Your task to perform on an android device: Open location settings Image 0: 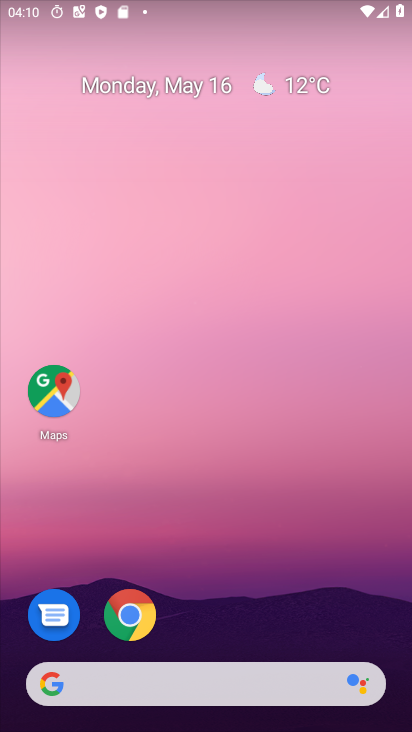
Step 0: drag from (369, 698) to (127, 113)
Your task to perform on an android device: Open location settings Image 1: 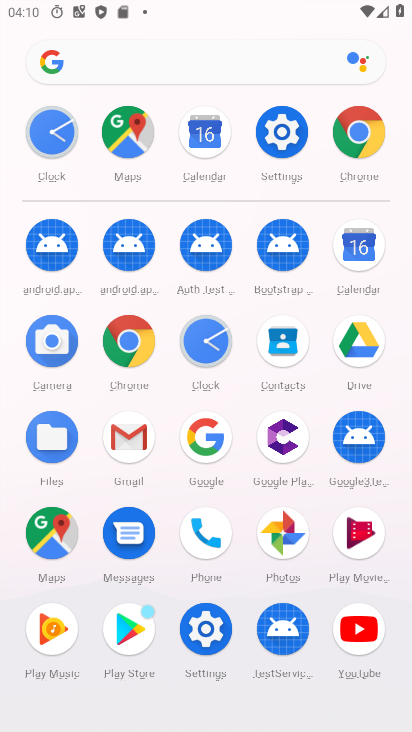
Step 1: click (201, 646)
Your task to perform on an android device: Open location settings Image 2: 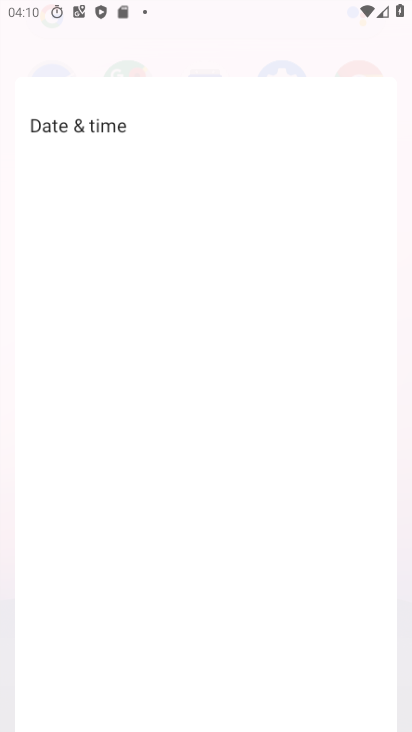
Step 2: click (196, 637)
Your task to perform on an android device: Open location settings Image 3: 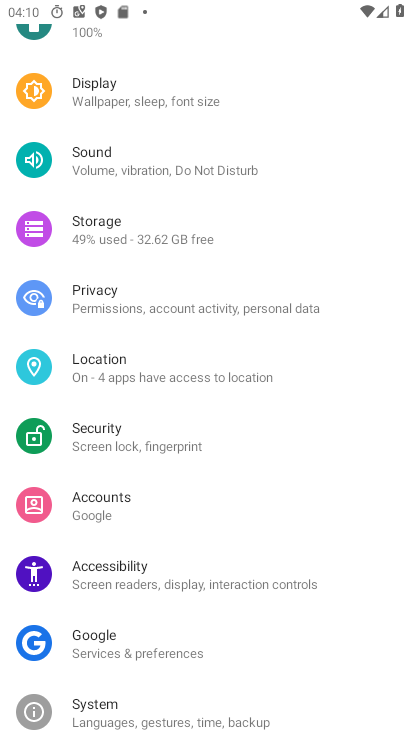
Step 3: click (196, 635)
Your task to perform on an android device: Open location settings Image 4: 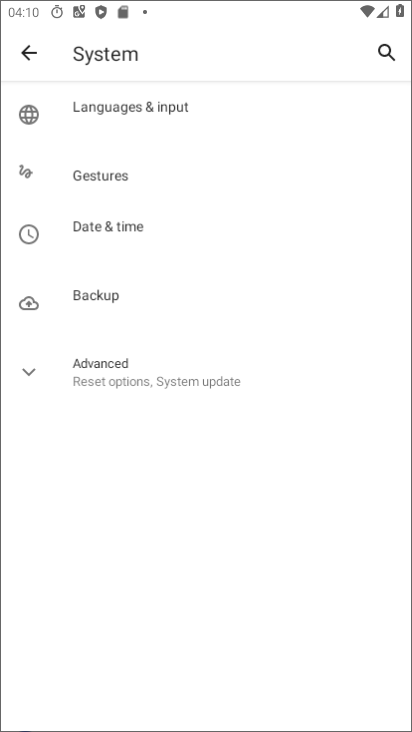
Step 4: drag from (129, 118) to (186, 501)
Your task to perform on an android device: Open location settings Image 5: 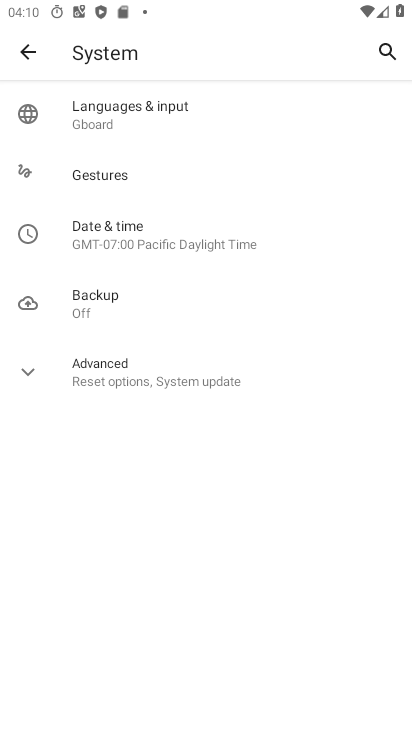
Step 5: click (29, 51)
Your task to perform on an android device: Open location settings Image 6: 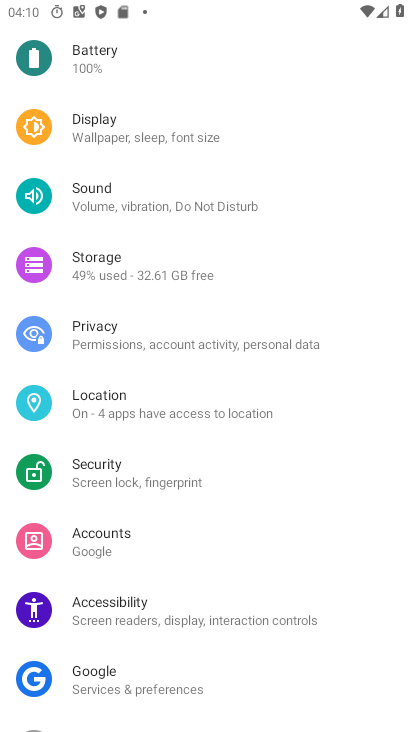
Step 6: click (106, 403)
Your task to perform on an android device: Open location settings Image 7: 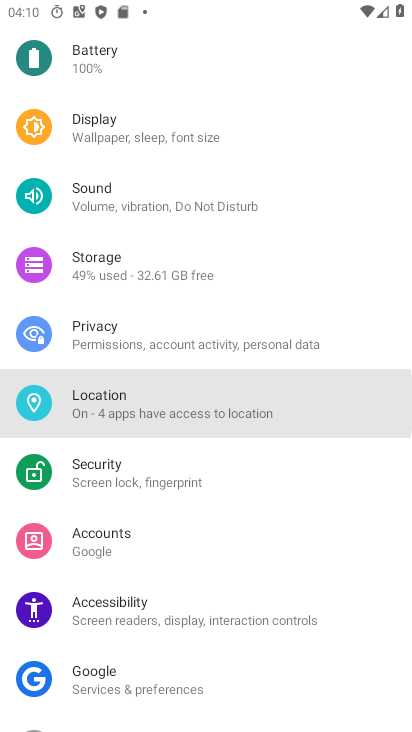
Step 7: click (105, 403)
Your task to perform on an android device: Open location settings Image 8: 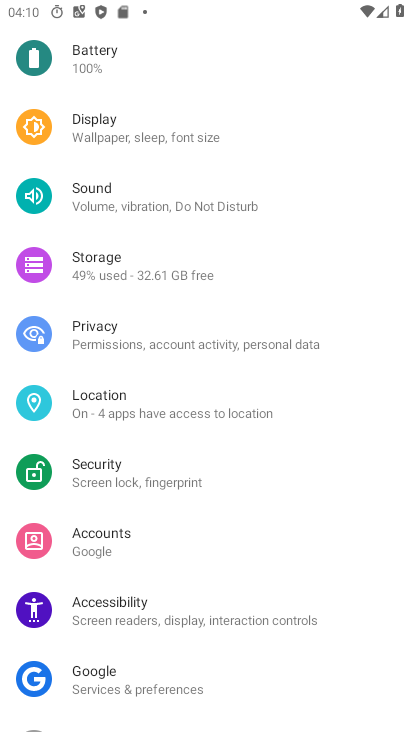
Step 8: click (105, 403)
Your task to perform on an android device: Open location settings Image 9: 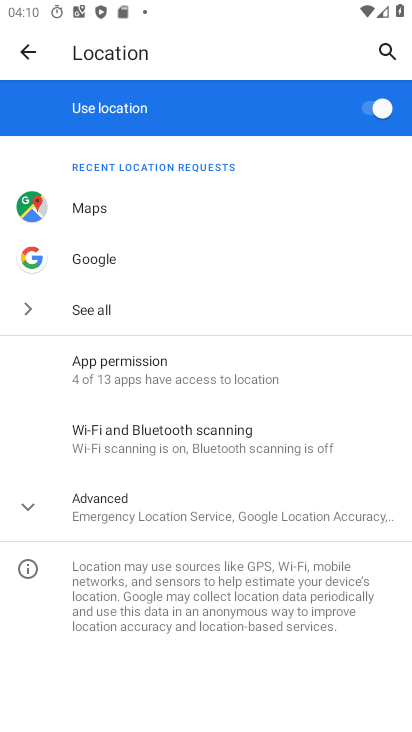
Step 9: task complete